Your task to perform on an android device: change text size in settings app Image 0: 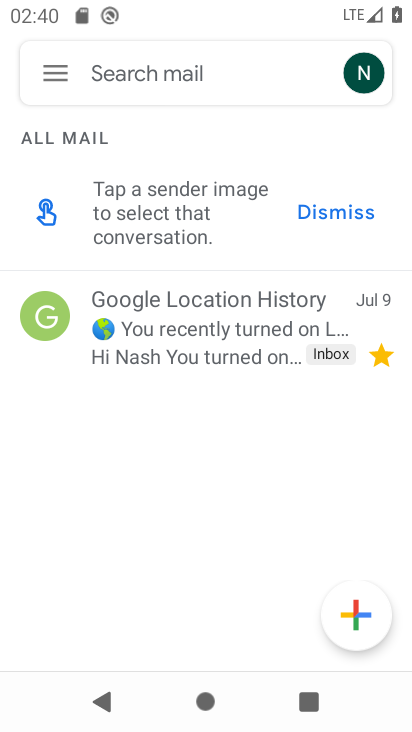
Step 0: press home button
Your task to perform on an android device: change text size in settings app Image 1: 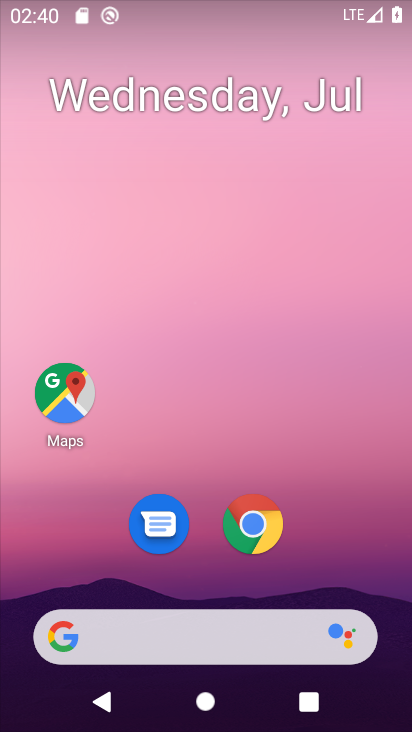
Step 1: drag from (324, 535) to (297, 38)
Your task to perform on an android device: change text size in settings app Image 2: 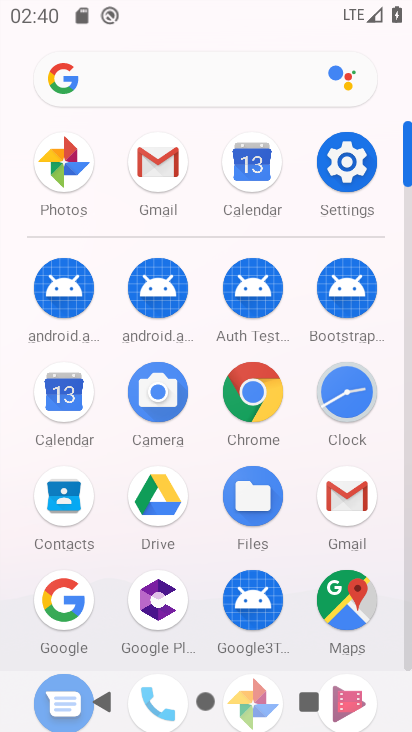
Step 2: click (333, 165)
Your task to perform on an android device: change text size in settings app Image 3: 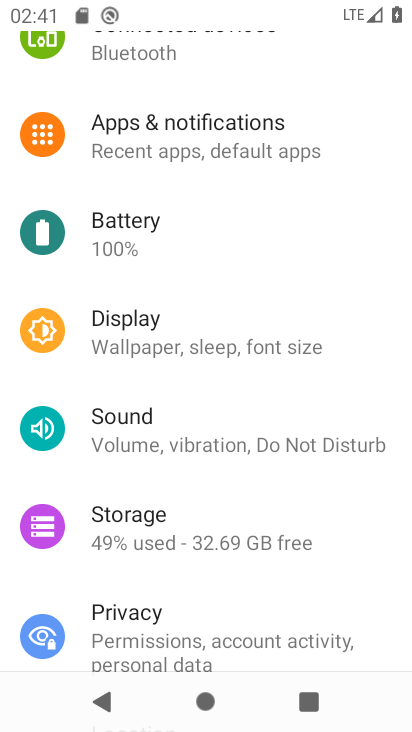
Step 3: click (250, 340)
Your task to perform on an android device: change text size in settings app Image 4: 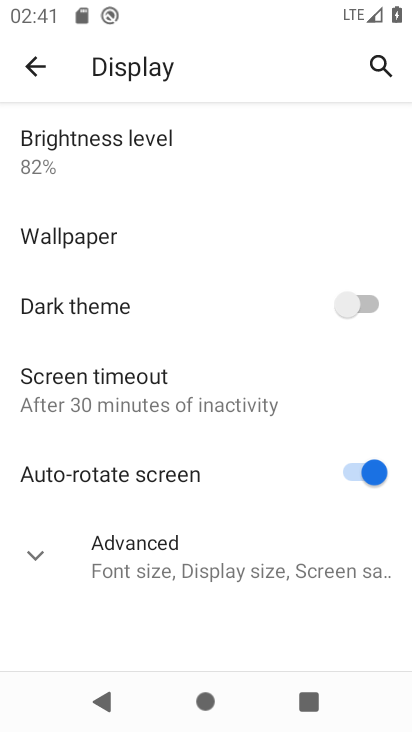
Step 4: click (36, 558)
Your task to perform on an android device: change text size in settings app Image 5: 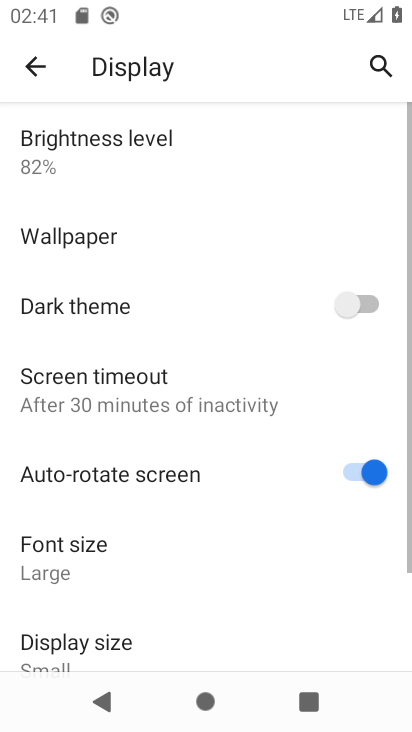
Step 5: drag from (203, 522) to (264, 185)
Your task to perform on an android device: change text size in settings app Image 6: 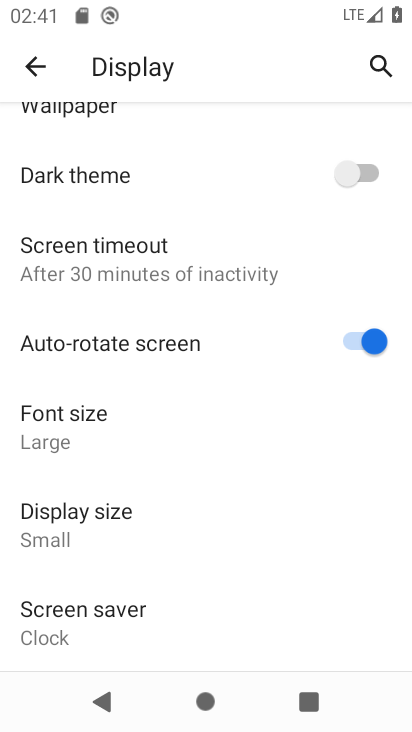
Step 6: click (78, 429)
Your task to perform on an android device: change text size in settings app Image 7: 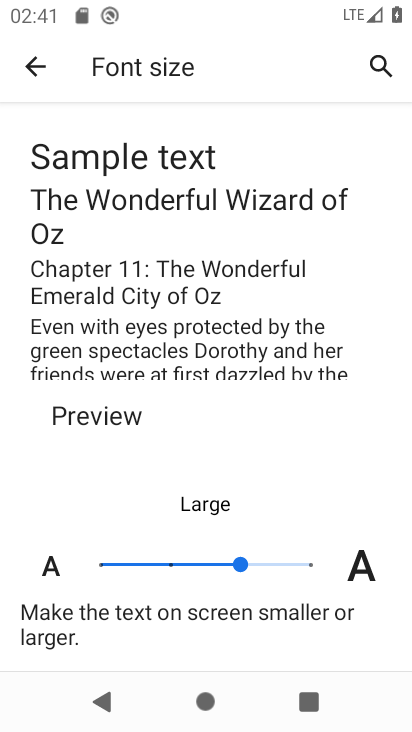
Step 7: click (170, 564)
Your task to perform on an android device: change text size in settings app Image 8: 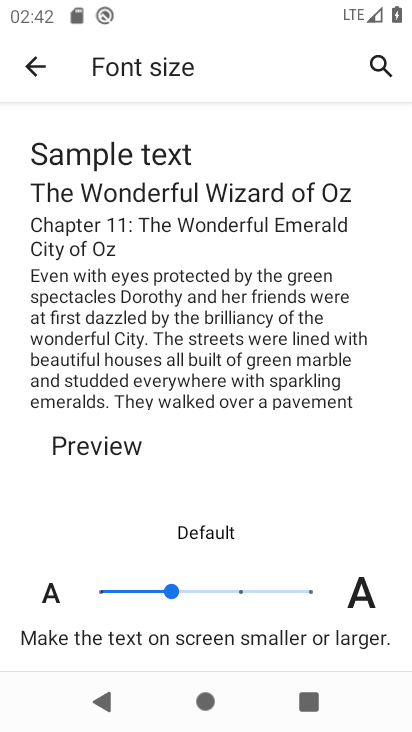
Step 8: click (35, 69)
Your task to perform on an android device: change text size in settings app Image 9: 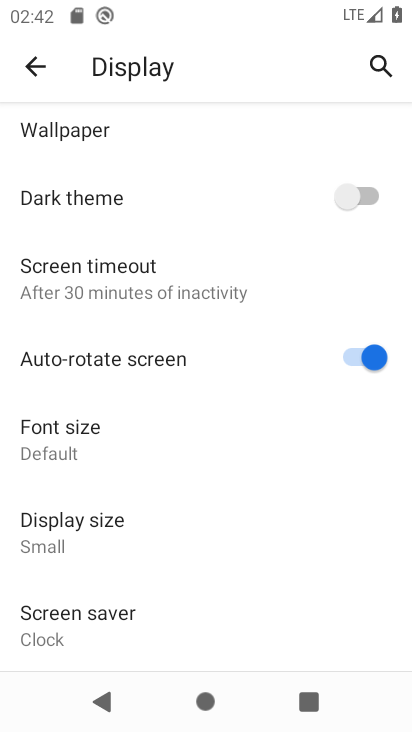
Step 9: task complete